Your task to perform on an android device: toggle data saver in the chrome app Image 0: 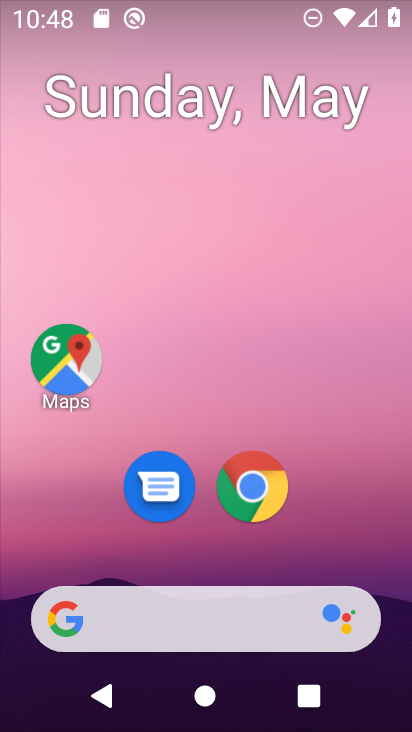
Step 0: drag from (378, 544) to (266, 147)
Your task to perform on an android device: toggle data saver in the chrome app Image 1: 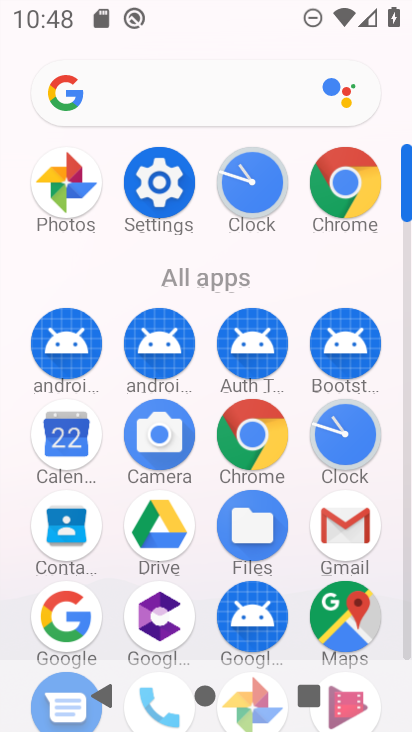
Step 1: click (353, 205)
Your task to perform on an android device: toggle data saver in the chrome app Image 2: 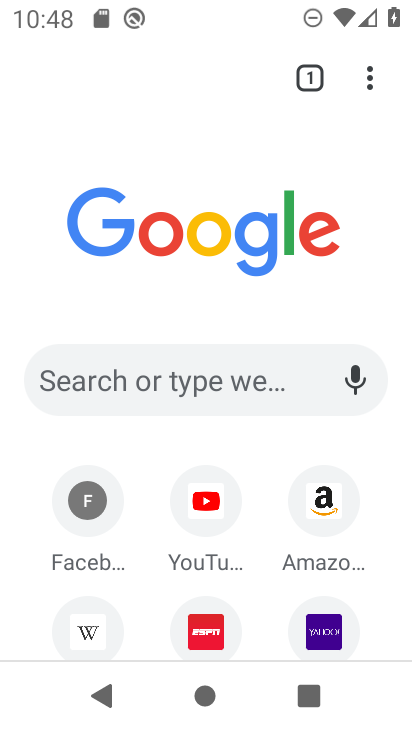
Step 2: click (372, 61)
Your task to perform on an android device: toggle data saver in the chrome app Image 3: 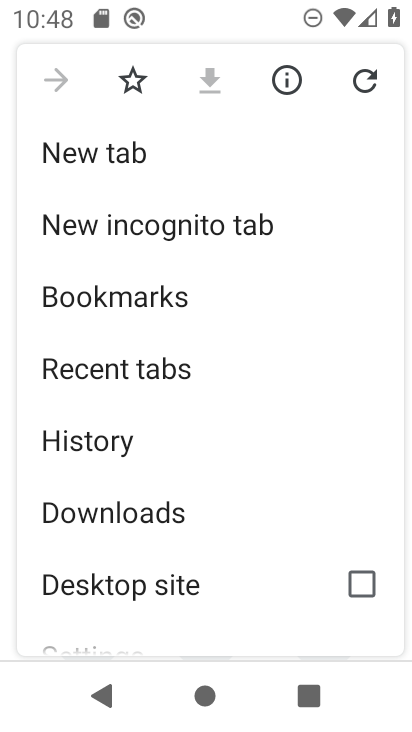
Step 3: drag from (162, 634) to (182, 279)
Your task to perform on an android device: toggle data saver in the chrome app Image 4: 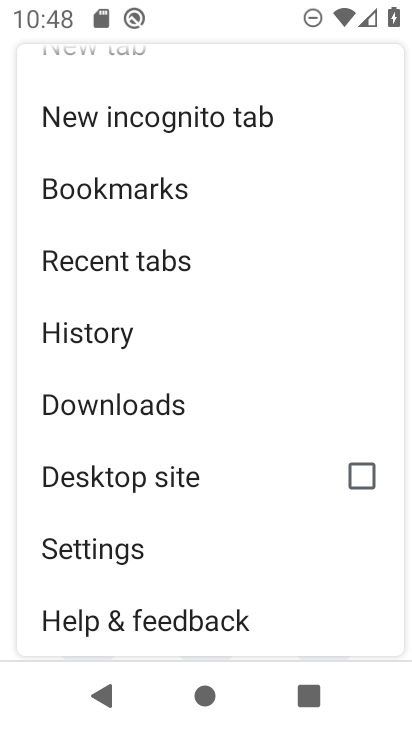
Step 4: click (154, 557)
Your task to perform on an android device: toggle data saver in the chrome app Image 5: 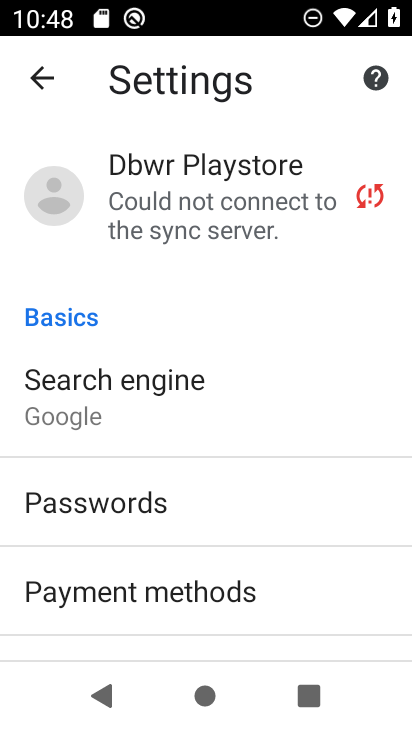
Step 5: drag from (247, 623) to (242, 227)
Your task to perform on an android device: toggle data saver in the chrome app Image 6: 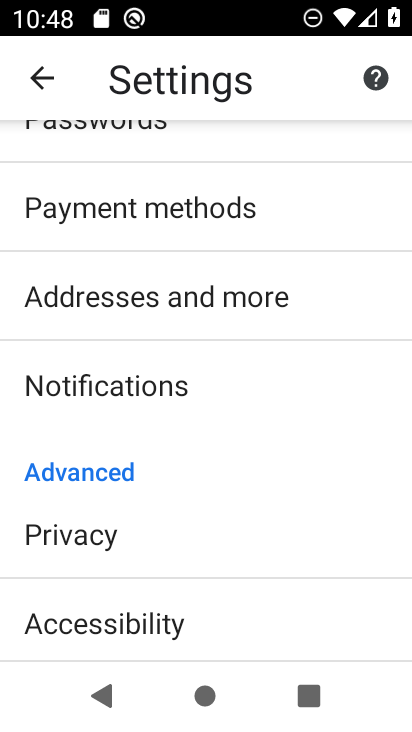
Step 6: drag from (296, 572) to (212, 97)
Your task to perform on an android device: toggle data saver in the chrome app Image 7: 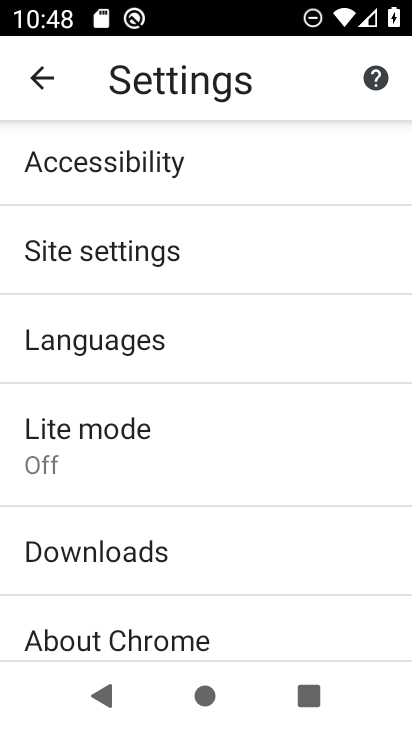
Step 7: click (204, 436)
Your task to perform on an android device: toggle data saver in the chrome app Image 8: 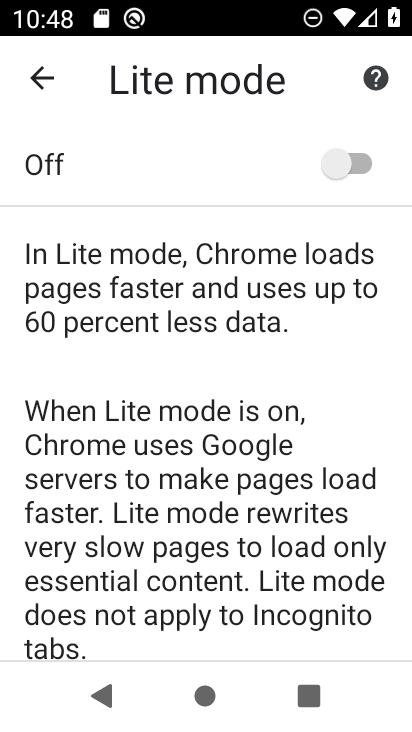
Step 8: click (352, 169)
Your task to perform on an android device: toggle data saver in the chrome app Image 9: 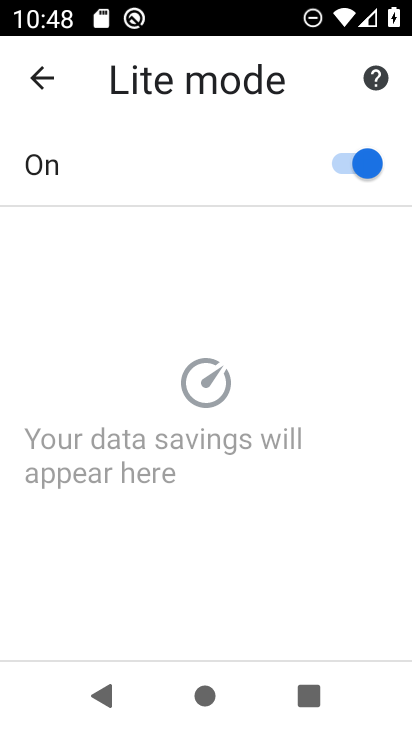
Step 9: task complete